Your task to perform on an android device: Open settings on Google Maps Image 0: 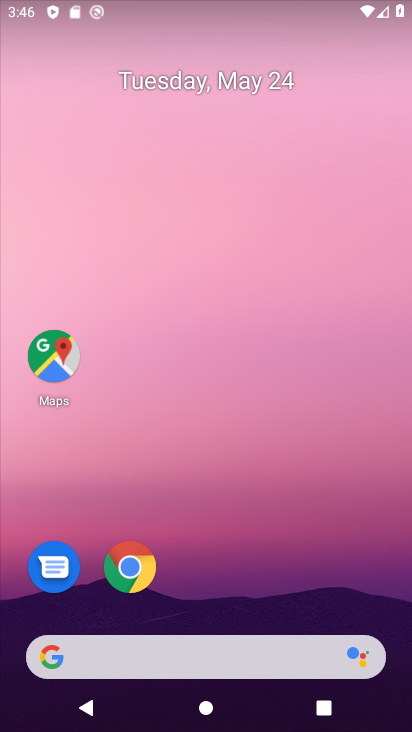
Step 0: click (227, 442)
Your task to perform on an android device: Open settings on Google Maps Image 1: 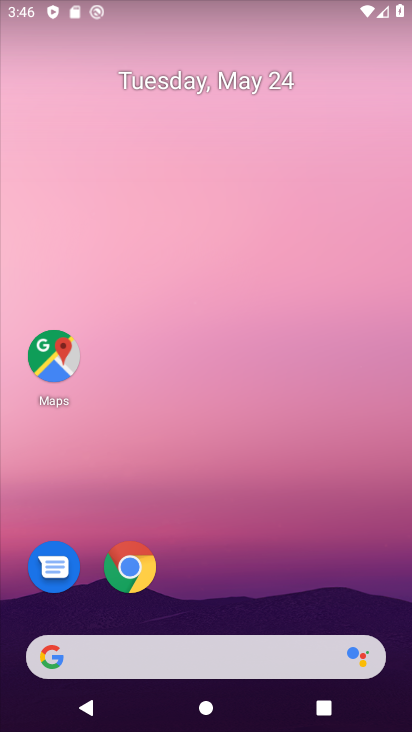
Step 1: click (69, 358)
Your task to perform on an android device: Open settings on Google Maps Image 2: 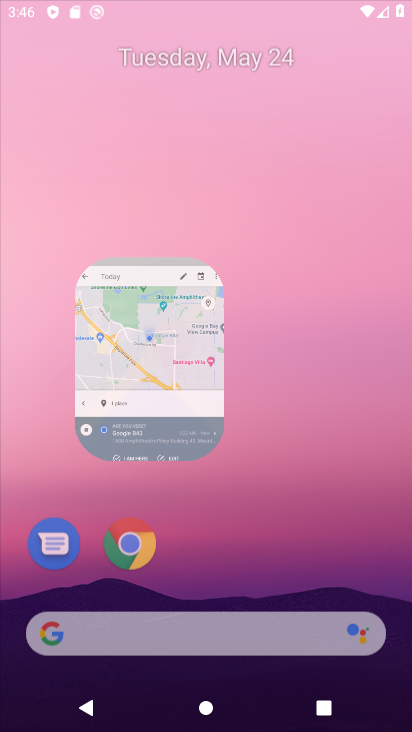
Step 2: click (66, 358)
Your task to perform on an android device: Open settings on Google Maps Image 3: 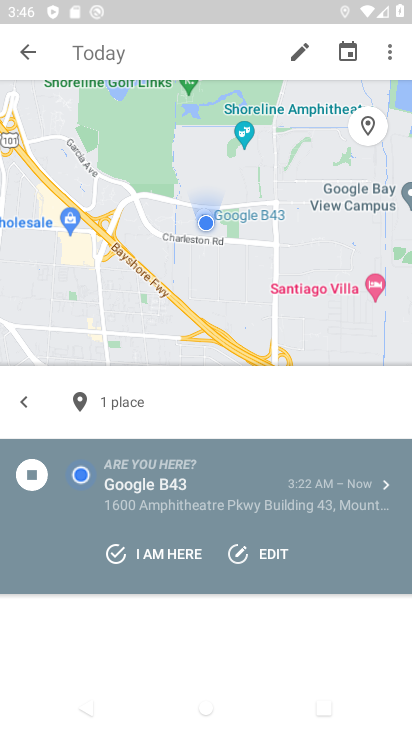
Step 3: task complete